Your task to perform on an android device: turn off location history Image 0: 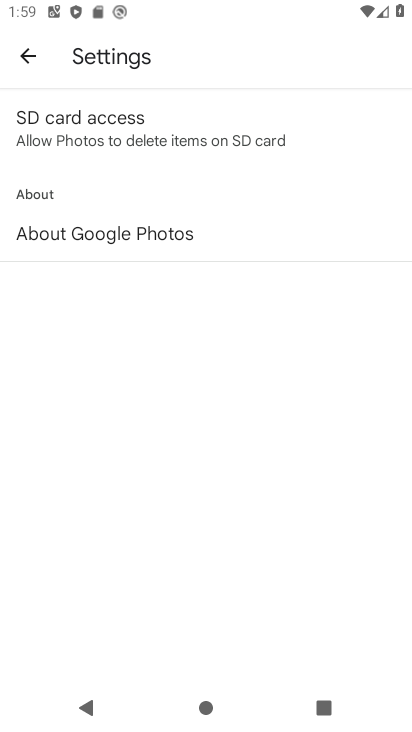
Step 0: press home button
Your task to perform on an android device: turn off location history Image 1: 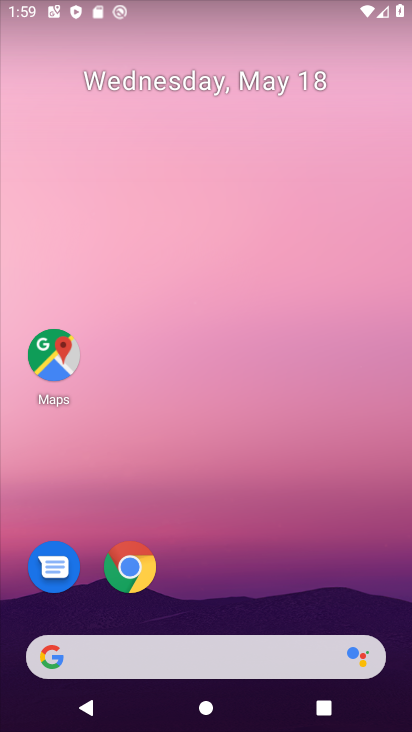
Step 1: drag from (232, 514) to (247, 38)
Your task to perform on an android device: turn off location history Image 2: 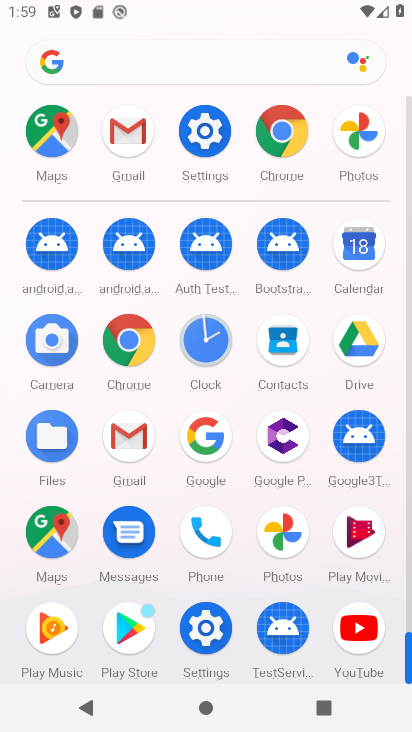
Step 2: click (213, 138)
Your task to perform on an android device: turn off location history Image 3: 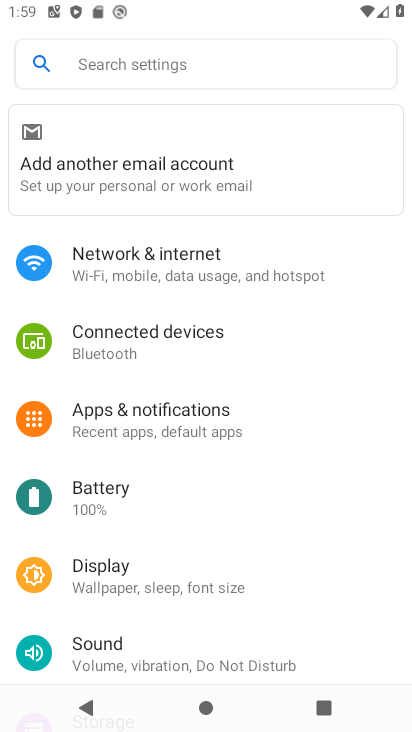
Step 3: drag from (175, 645) to (218, 102)
Your task to perform on an android device: turn off location history Image 4: 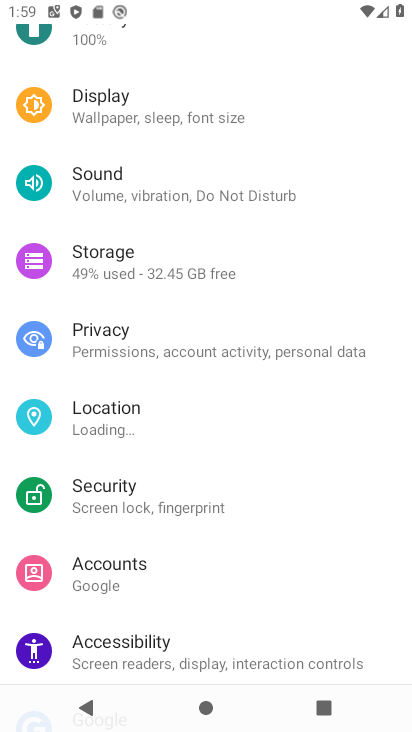
Step 4: click (150, 420)
Your task to perform on an android device: turn off location history Image 5: 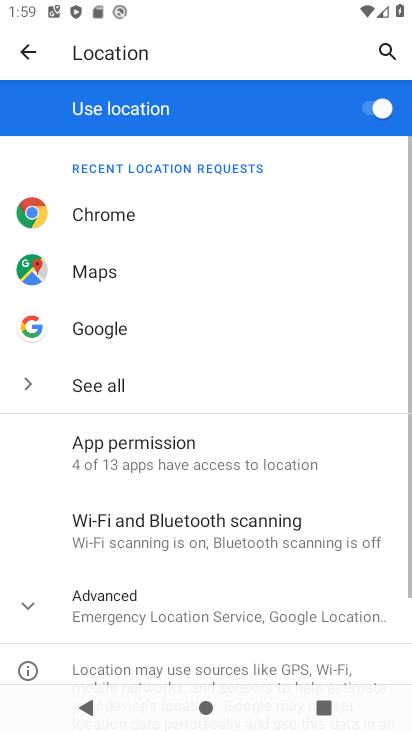
Step 5: click (174, 620)
Your task to perform on an android device: turn off location history Image 6: 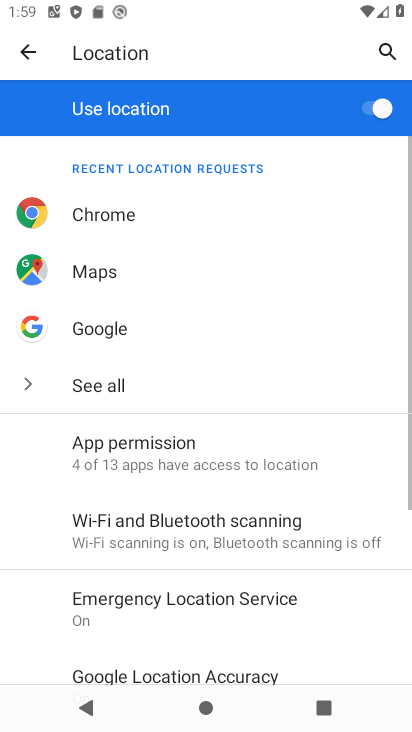
Step 6: drag from (208, 589) to (265, 89)
Your task to perform on an android device: turn off location history Image 7: 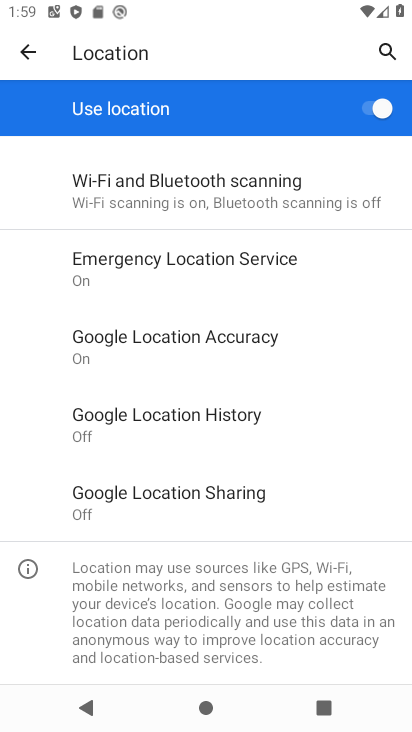
Step 7: click (174, 416)
Your task to perform on an android device: turn off location history Image 8: 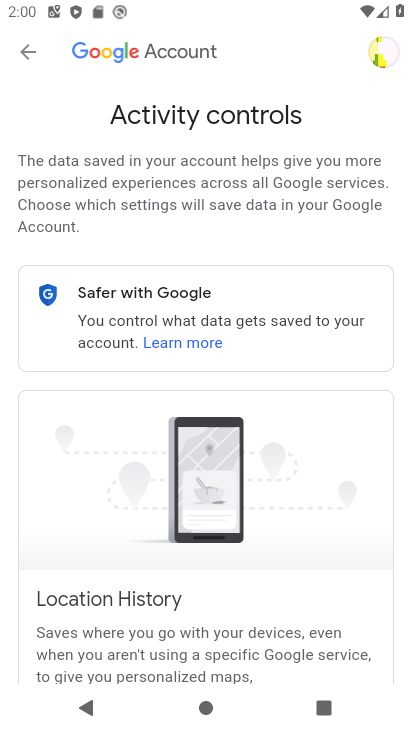
Step 8: task complete